Your task to perform on an android device: Is it going to rain tomorrow? Image 0: 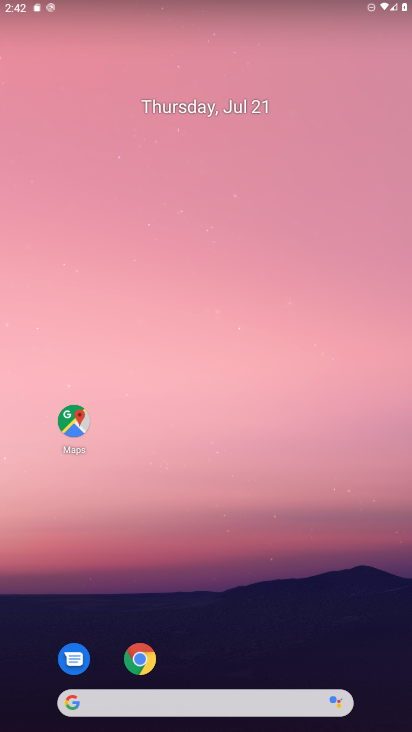
Step 0: press home button
Your task to perform on an android device: Is it going to rain tomorrow? Image 1: 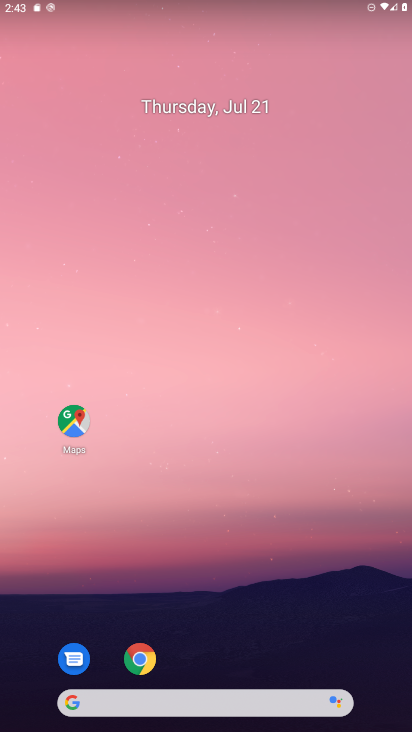
Step 1: click (263, 711)
Your task to perform on an android device: Is it going to rain tomorrow? Image 2: 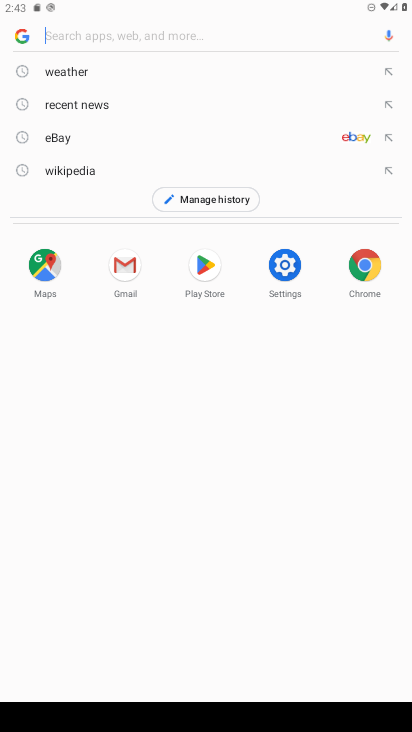
Step 2: click (77, 76)
Your task to perform on an android device: Is it going to rain tomorrow? Image 3: 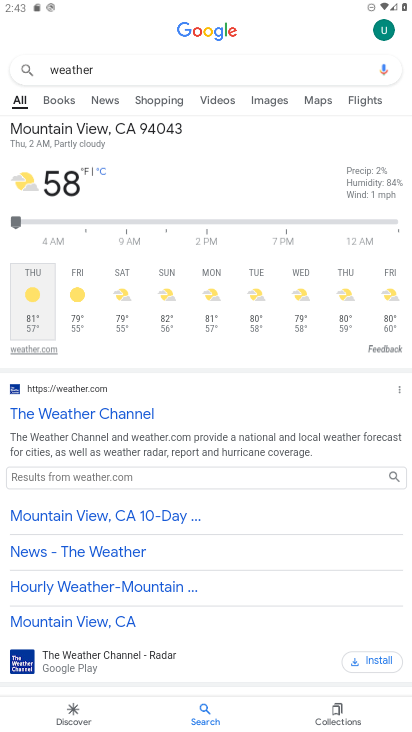
Step 3: task complete